Your task to perform on an android device: uninstall "Airtel Thanks" Image 0: 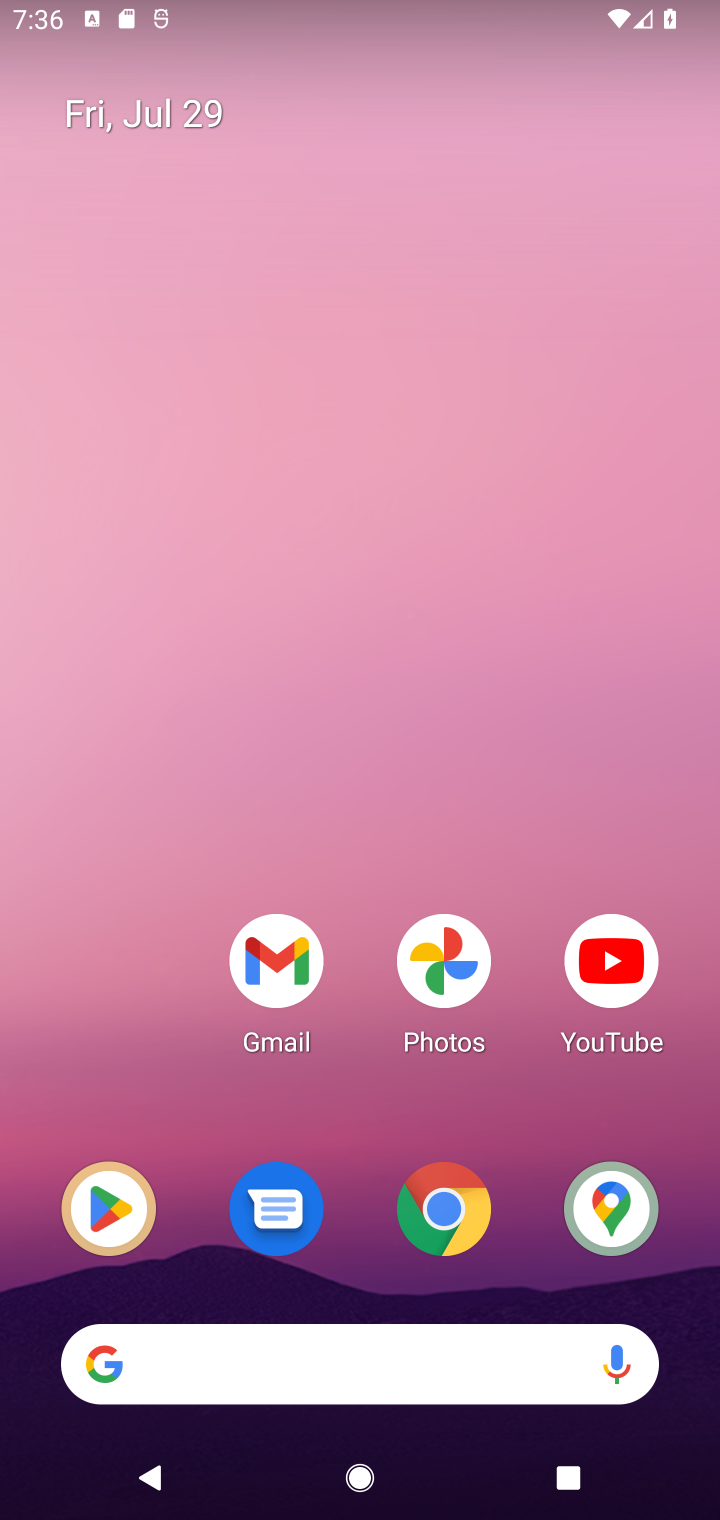
Step 0: click (108, 1213)
Your task to perform on an android device: uninstall "Airtel Thanks" Image 1: 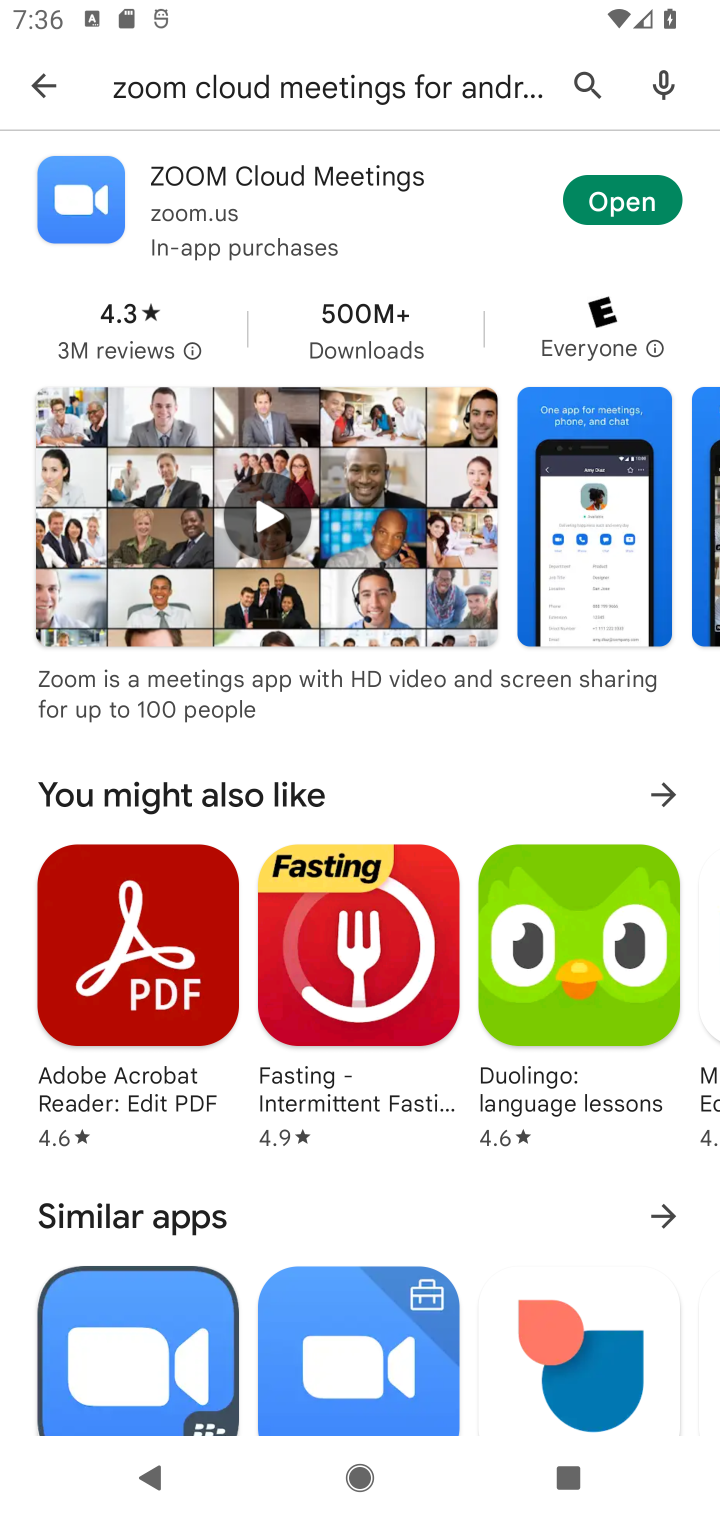
Step 1: click (570, 86)
Your task to perform on an android device: uninstall "Airtel Thanks" Image 2: 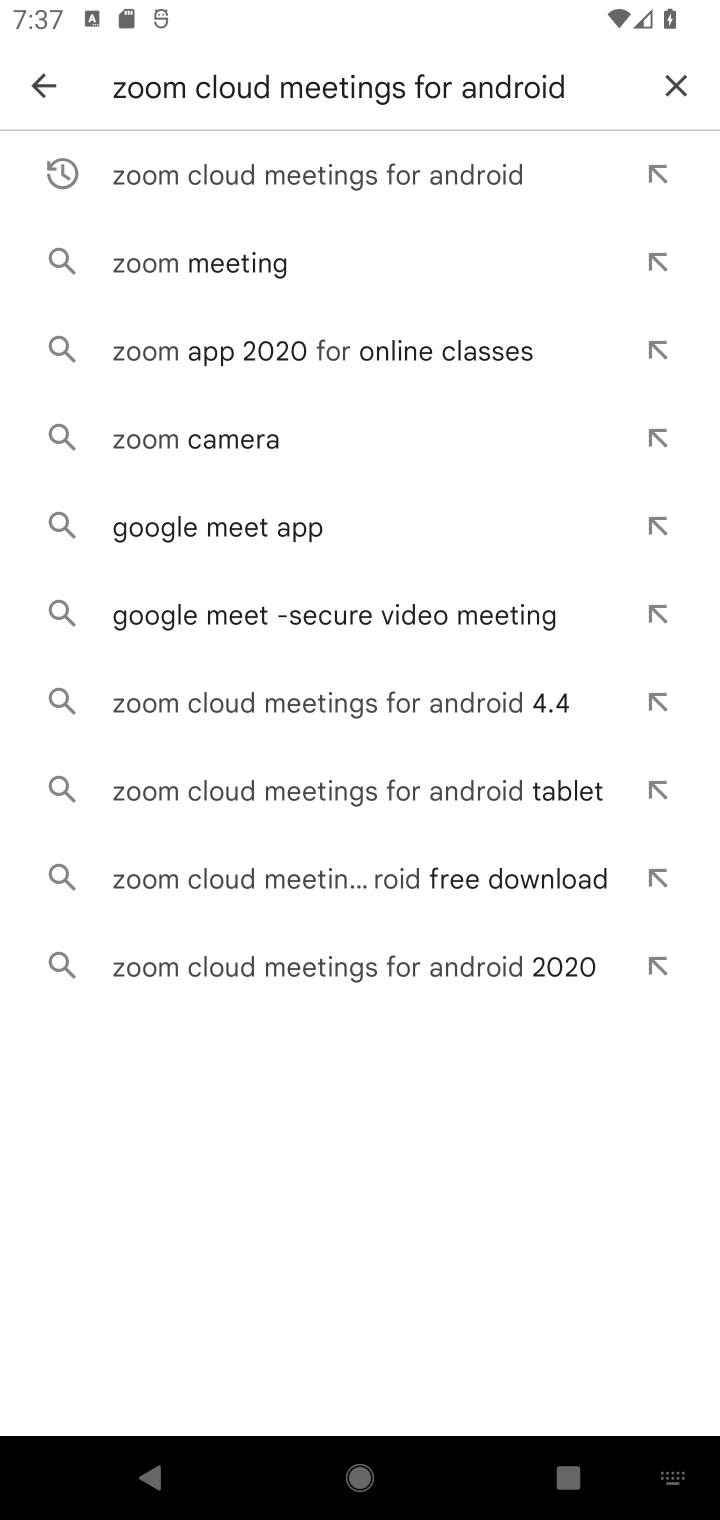
Step 2: click (664, 83)
Your task to perform on an android device: uninstall "Airtel Thanks" Image 3: 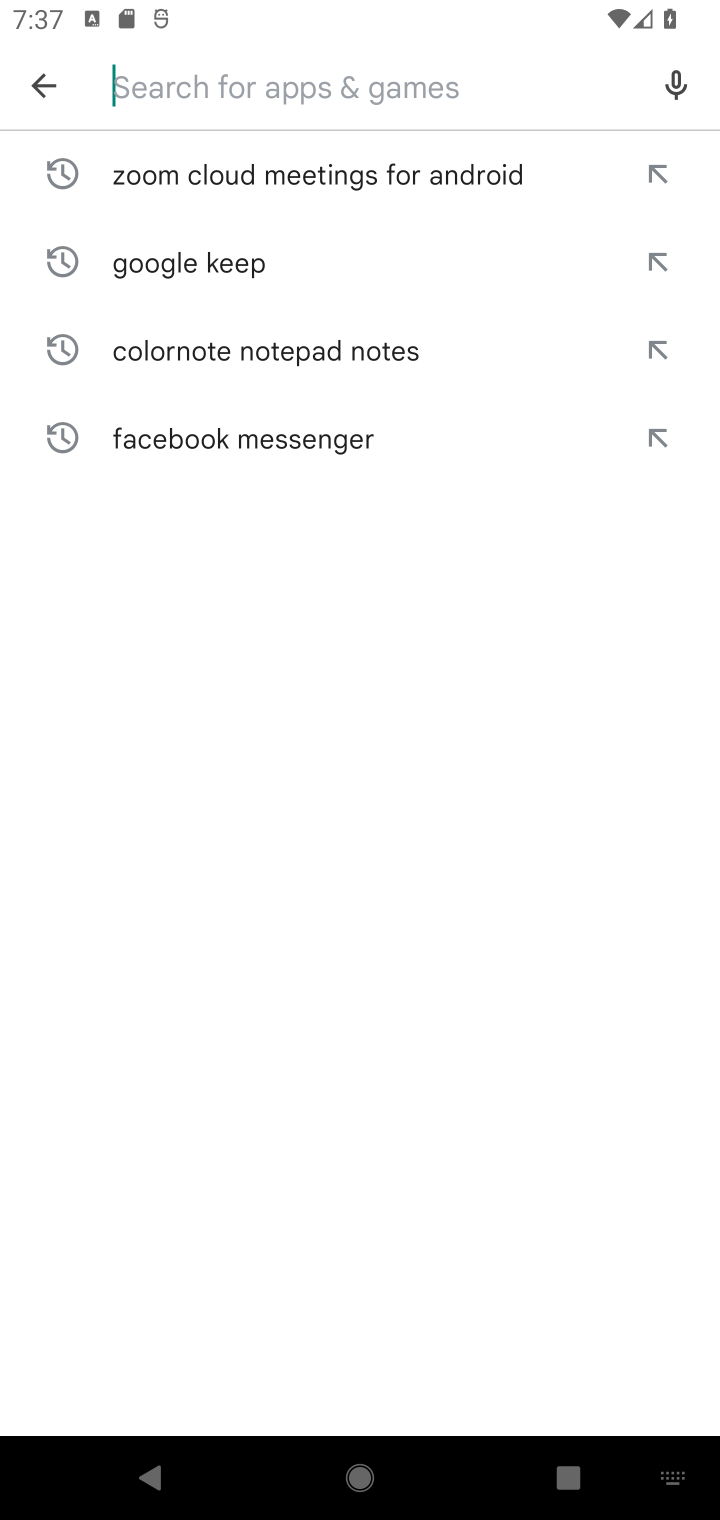
Step 3: click (468, 84)
Your task to perform on an android device: uninstall "Airtel Thanks" Image 4: 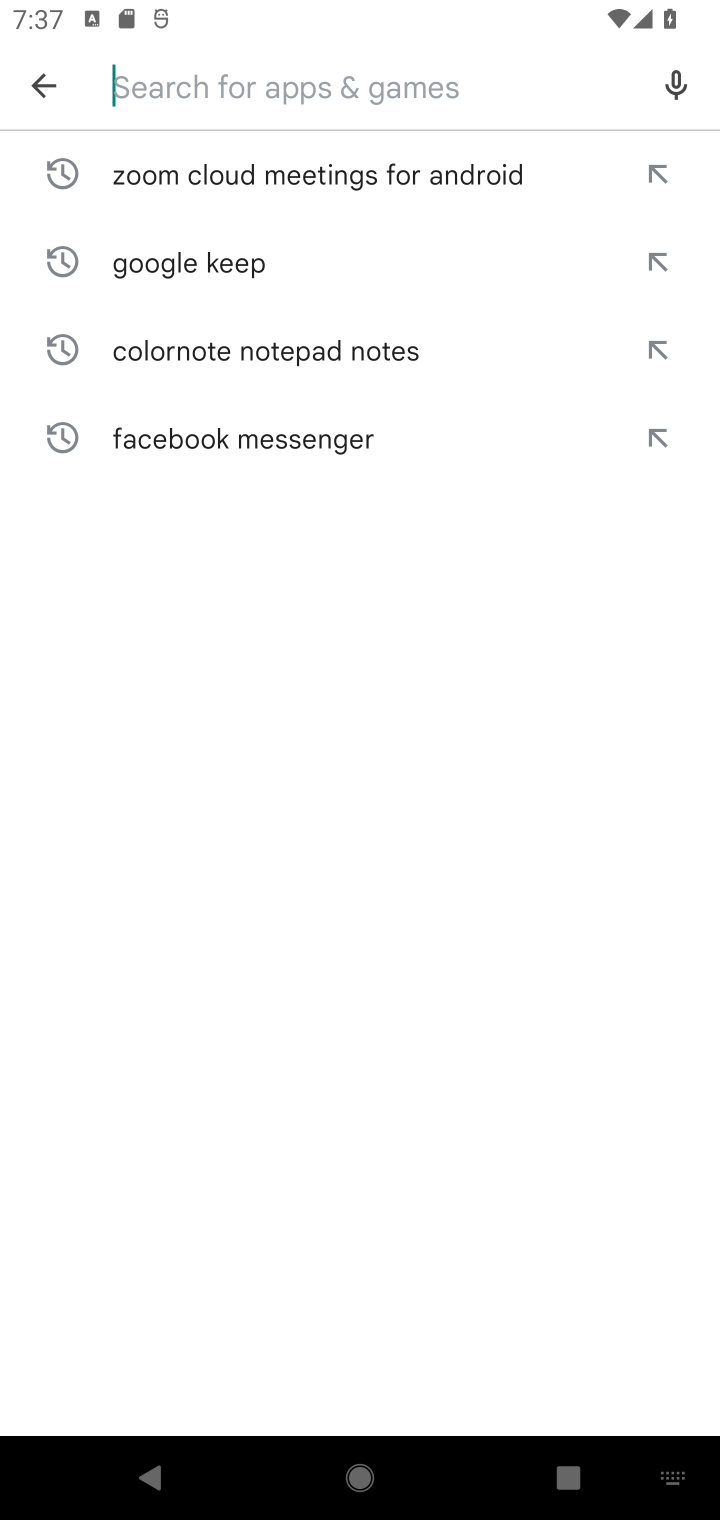
Step 4: type "Airtel Thanks"
Your task to perform on an android device: uninstall "Airtel Thanks" Image 5: 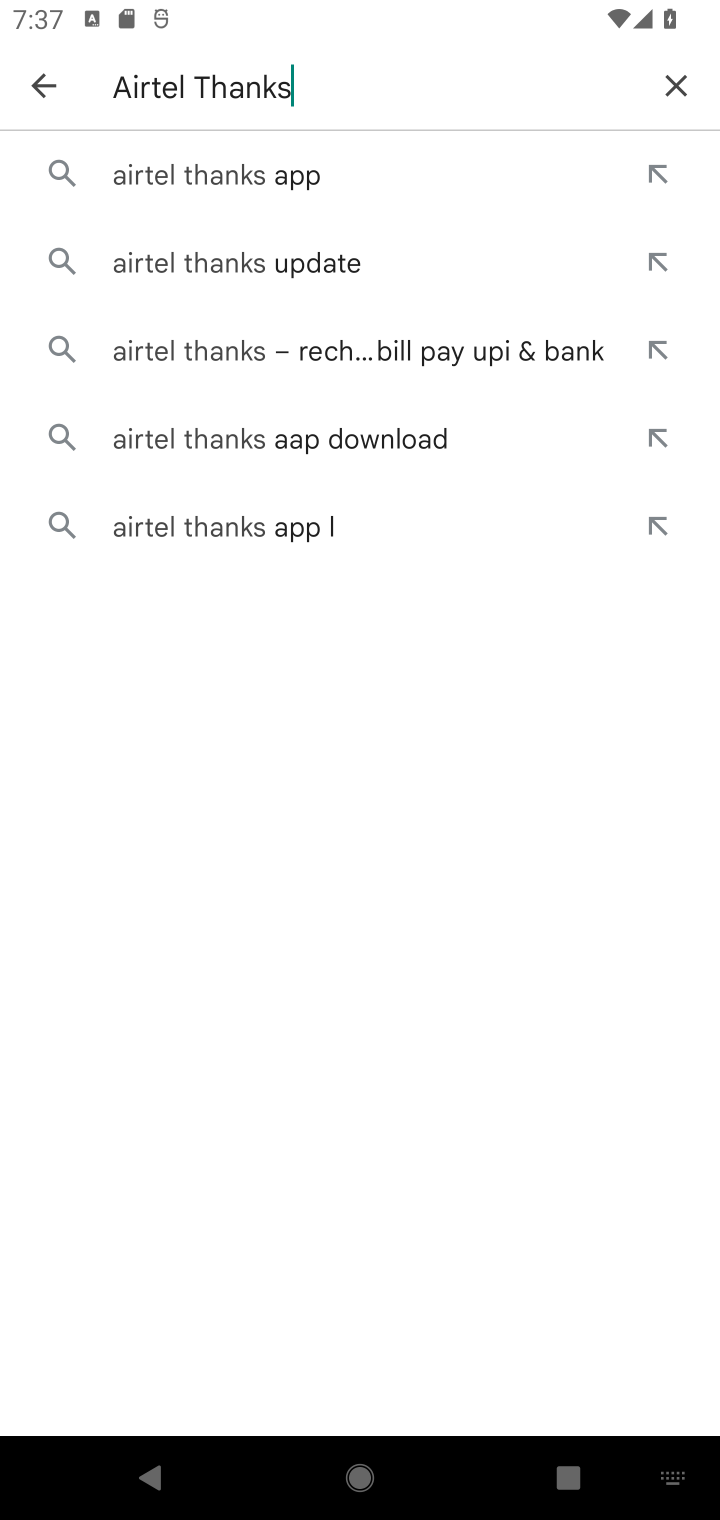
Step 5: click (219, 172)
Your task to perform on an android device: uninstall "Airtel Thanks" Image 6: 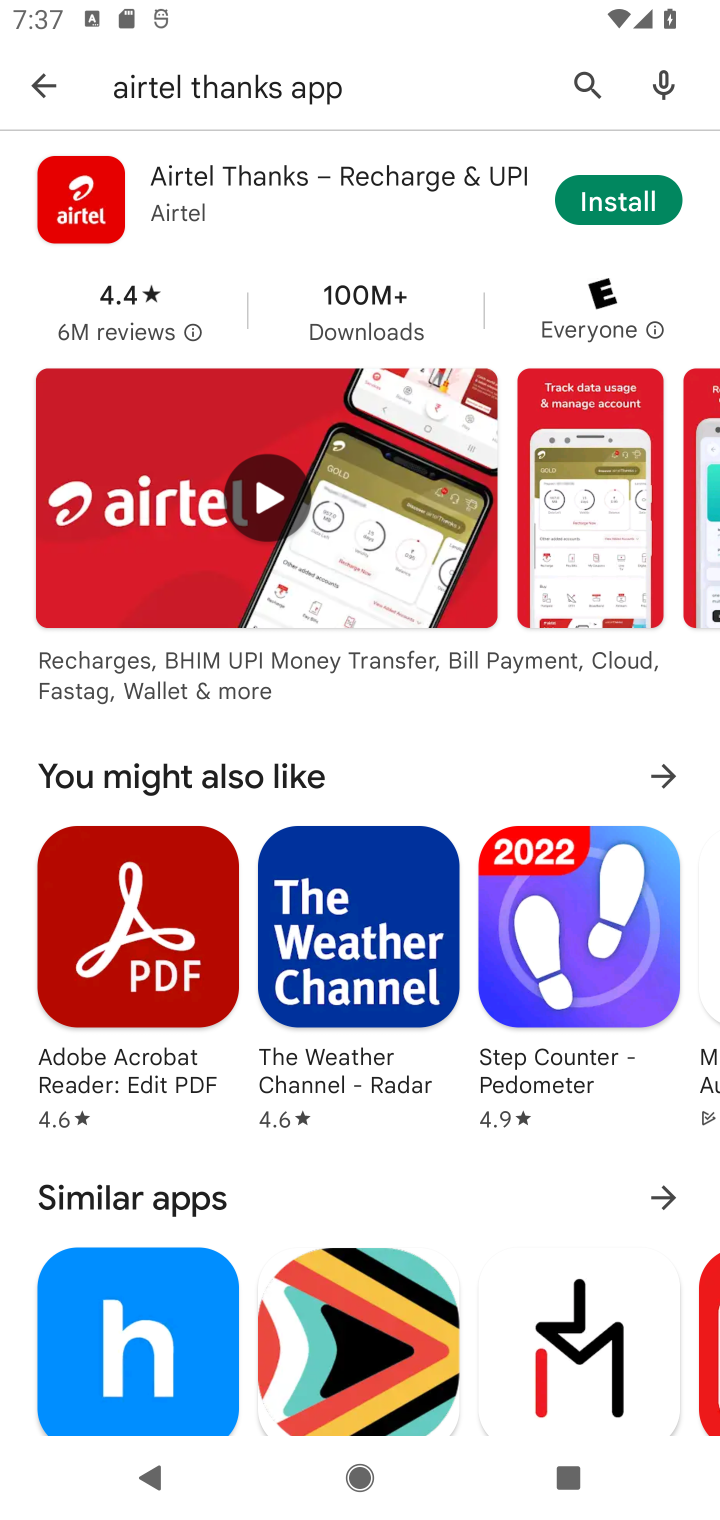
Step 6: task complete